Your task to perform on an android device: check the backup settings in the google photos Image 0: 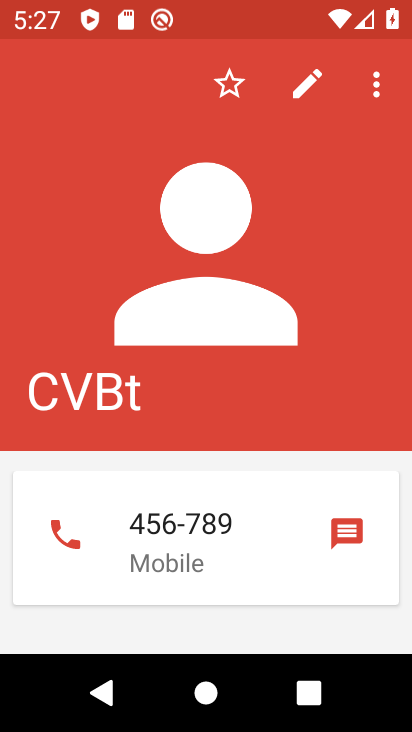
Step 0: press back button
Your task to perform on an android device: check the backup settings in the google photos Image 1: 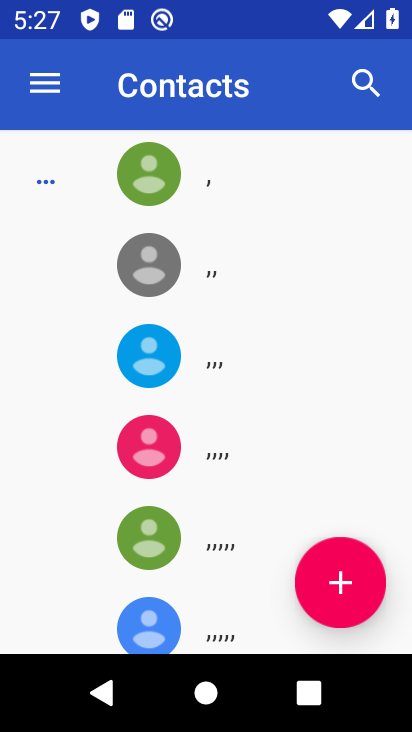
Step 1: press back button
Your task to perform on an android device: check the backup settings in the google photos Image 2: 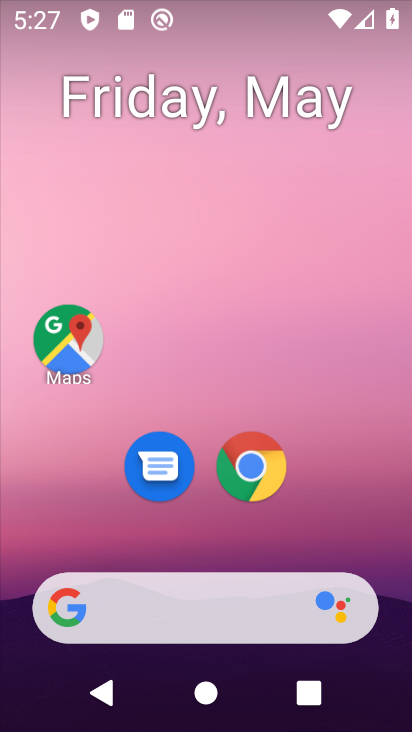
Step 2: drag from (329, 529) to (272, 68)
Your task to perform on an android device: check the backup settings in the google photos Image 3: 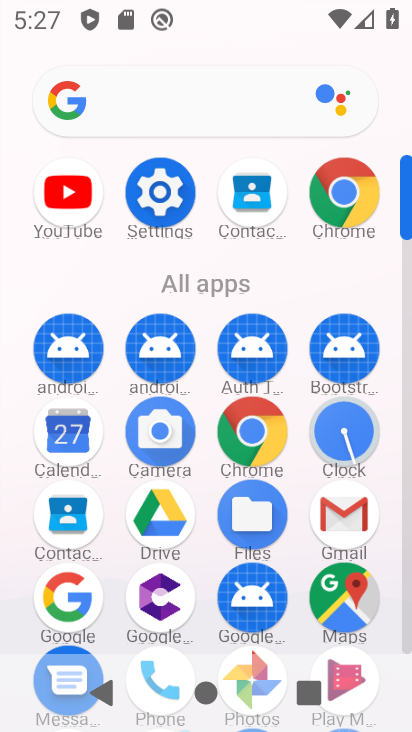
Step 3: drag from (5, 498) to (21, 275)
Your task to perform on an android device: check the backup settings in the google photos Image 4: 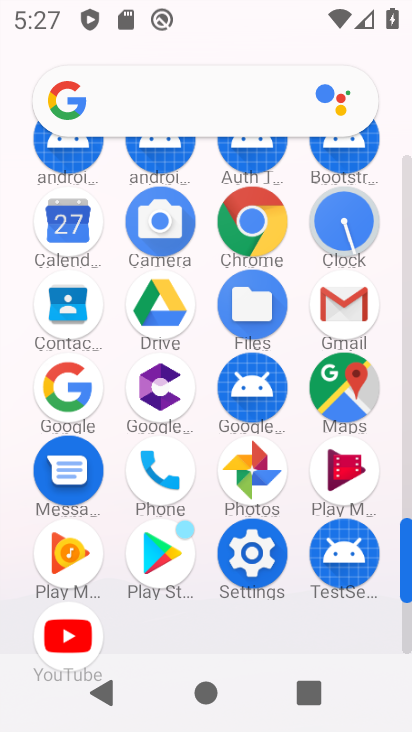
Step 4: click (251, 461)
Your task to perform on an android device: check the backup settings in the google photos Image 5: 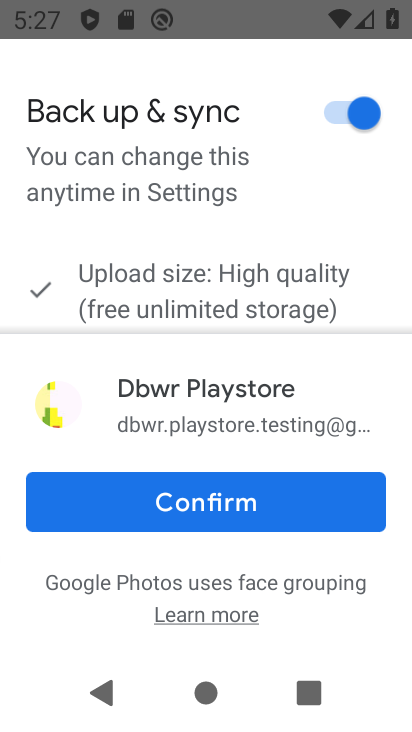
Step 5: click (224, 492)
Your task to perform on an android device: check the backup settings in the google photos Image 6: 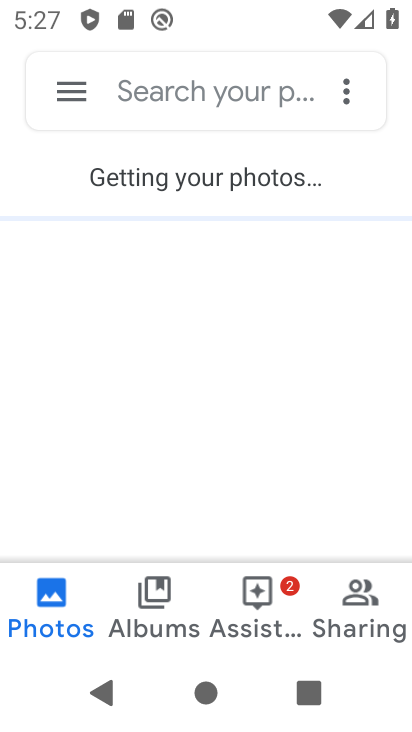
Step 6: click (77, 96)
Your task to perform on an android device: check the backup settings in the google photos Image 7: 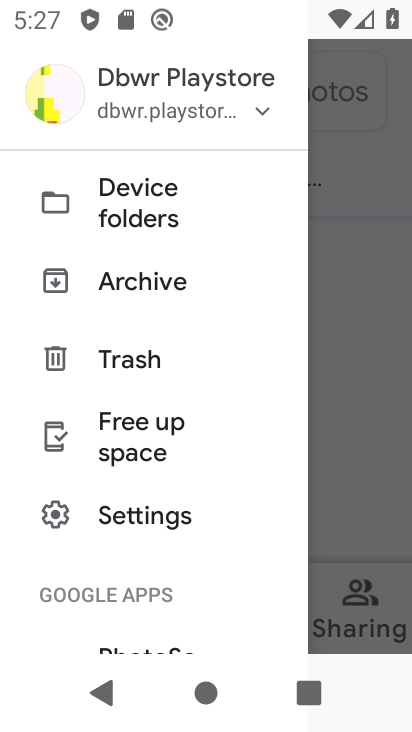
Step 7: click (118, 519)
Your task to perform on an android device: check the backup settings in the google photos Image 8: 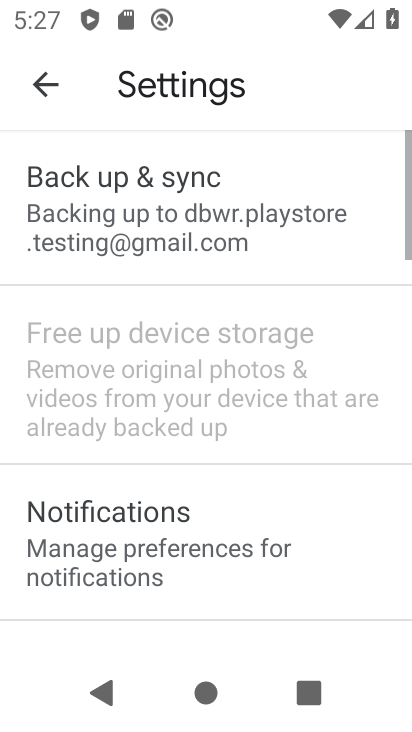
Step 8: click (227, 237)
Your task to perform on an android device: check the backup settings in the google photos Image 9: 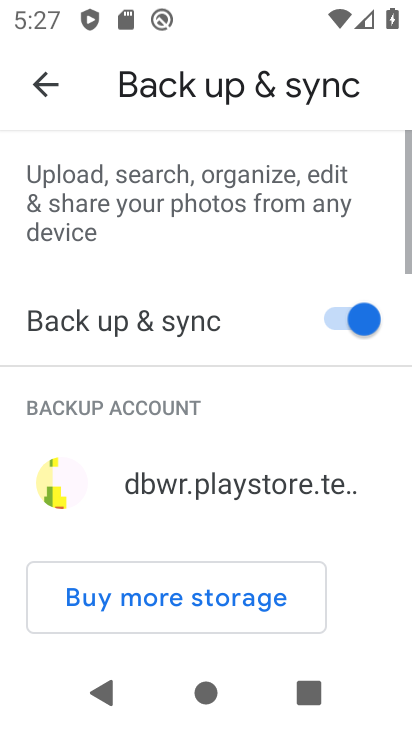
Step 9: task complete